Your task to perform on an android device: check battery use Image 0: 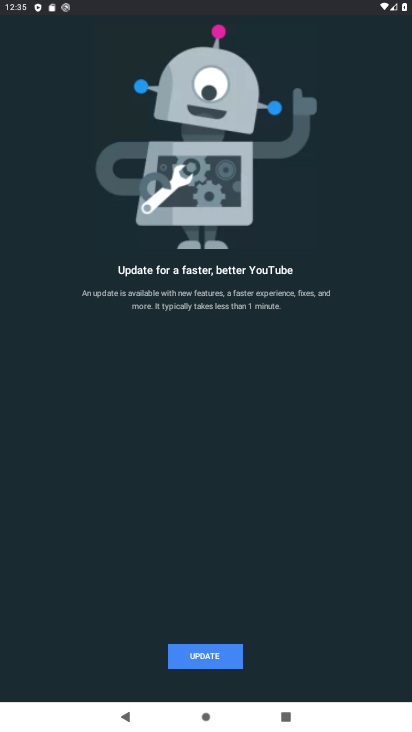
Step 0: press back button
Your task to perform on an android device: check battery use Image 1: 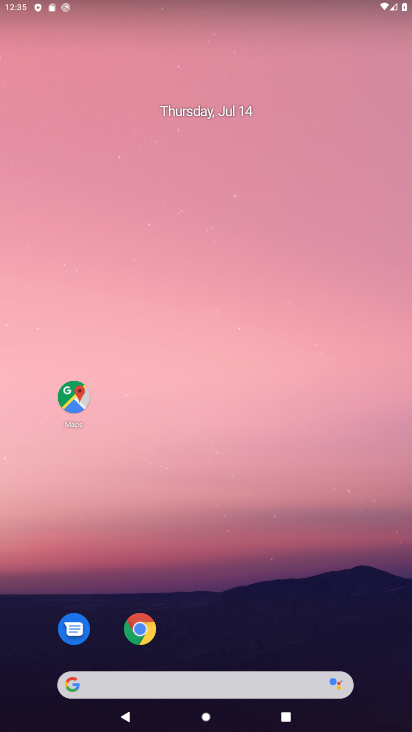
Step 1: drag from (227, 646) to (276, 159)
Your task to perform on an android device: check battery use Image 2: 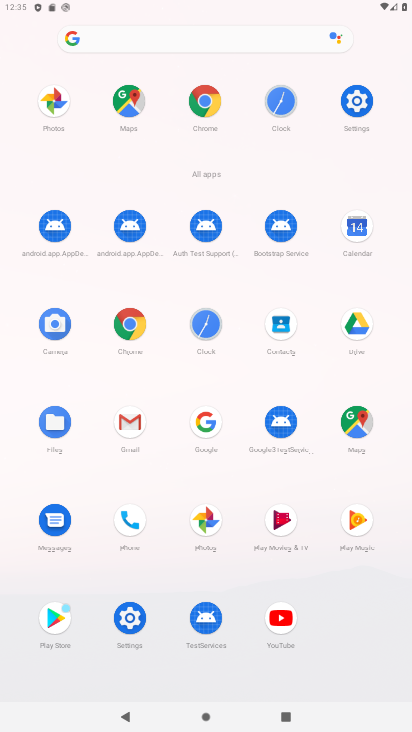
Step 2: click (363, 102)
Your task to perform on an android device: check battery use Image 3: 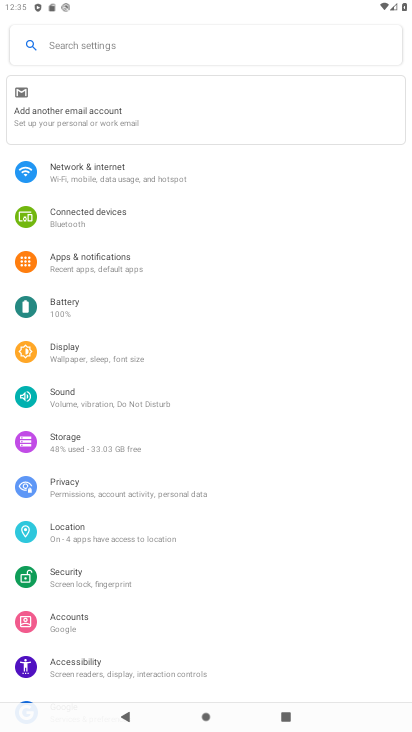
Step 3: click (73, 305)
Your task to perform on an android device: check battery use Image 4: 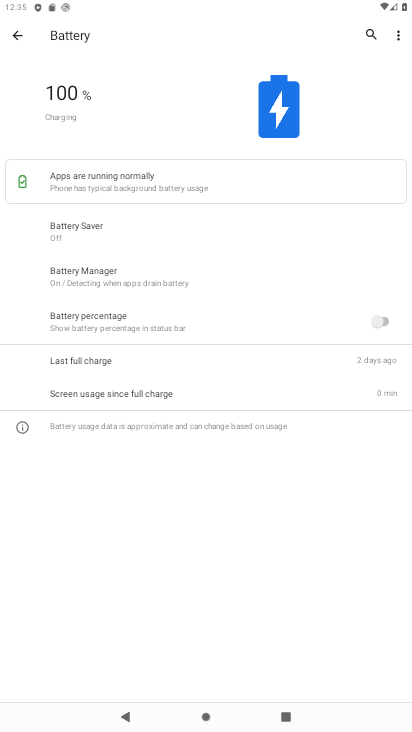
Step 4: click (399, 34)
Your task to perform on an android device: check battery use Image 5: 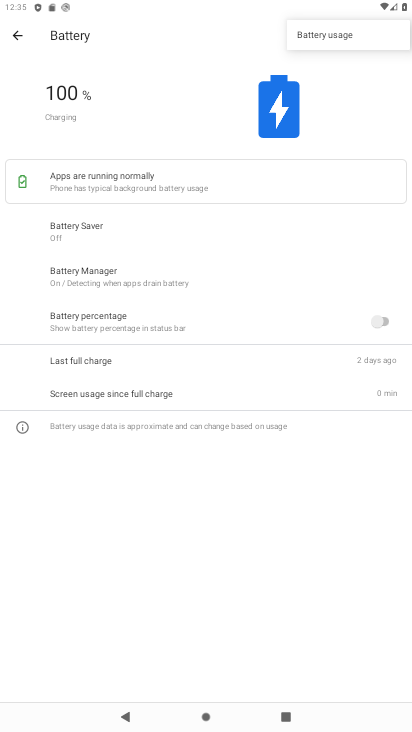
Step 5: click (339, 37)
Your task to perform on an android device: check battery use Image 6: 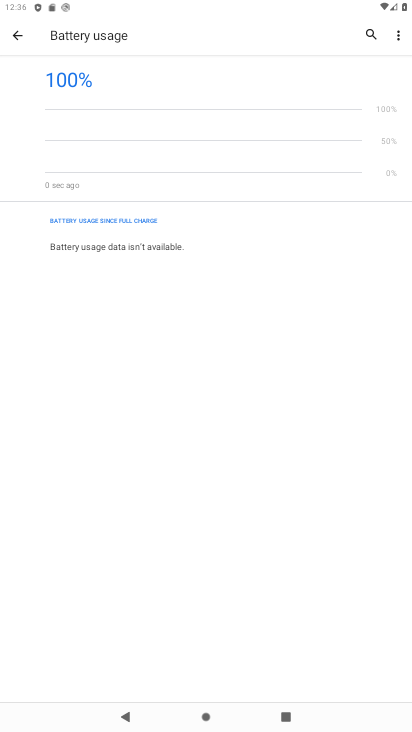
Step 6: task complete